Your task to perform on an android device: Go to calendar. Show me events next week Image 0: 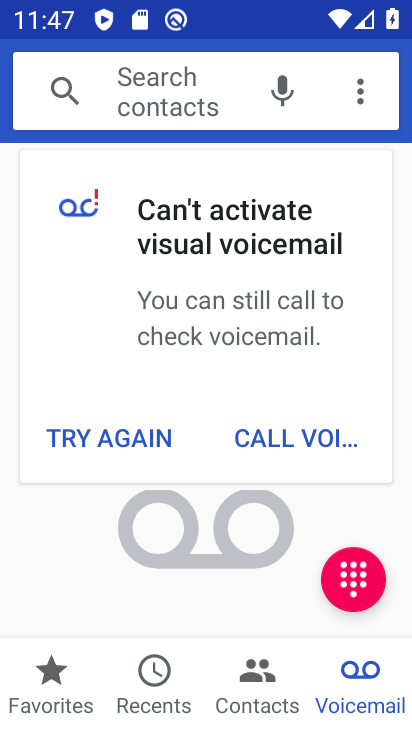
Step 0: task complete